Your task to perform on an android device: show emergency info Image 0: 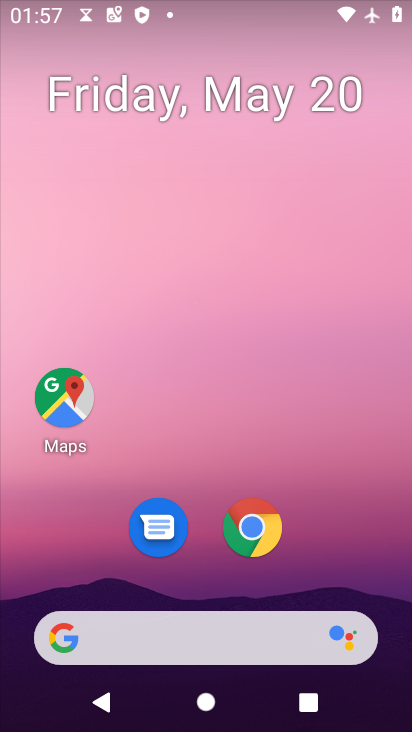
Step 0: press home button
Your task to perform on an android device: show emergency info Image 1: 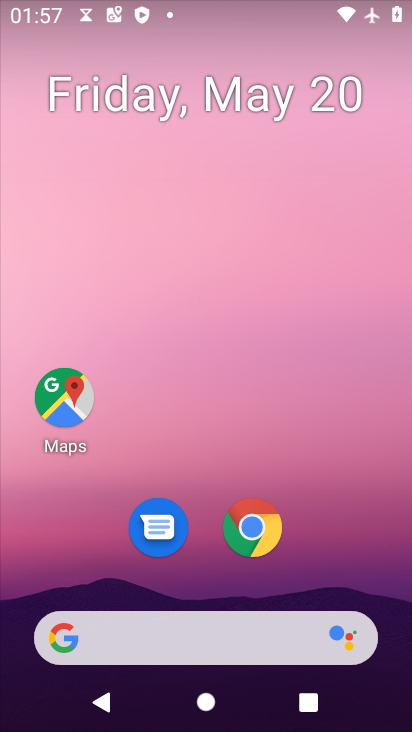
Step 1: drag from (142, 636) to (294, 240)
Your task to perform on an android device: show emergency info Image 2: 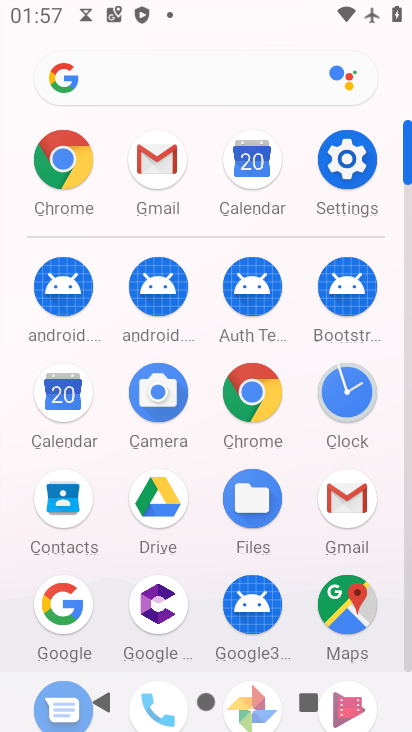
Step 2: click (352, 173)
Your task to perform on an android device: show emergency info Image 3: 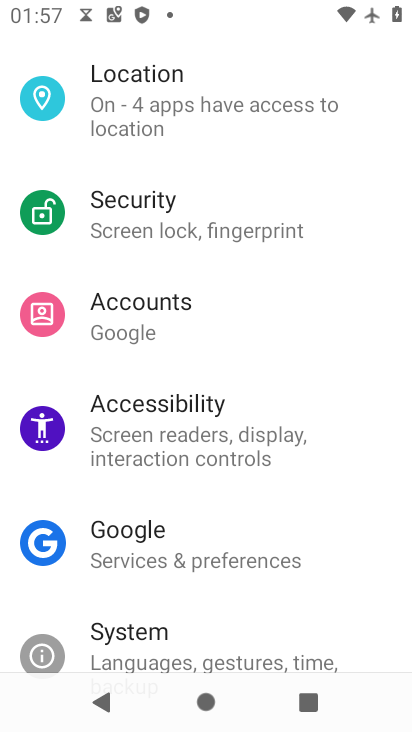
Step 3: drag from (259, 640) to (372, 204)
Your task to perform on an android device: show emergency info Image 4: 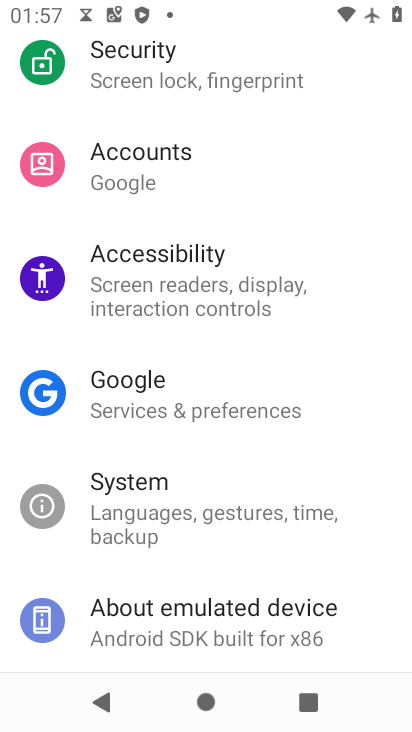
Step 4: drag from (236, 571) to (329, 292)
Your task to perform on an android device: show emergency info Image 5: 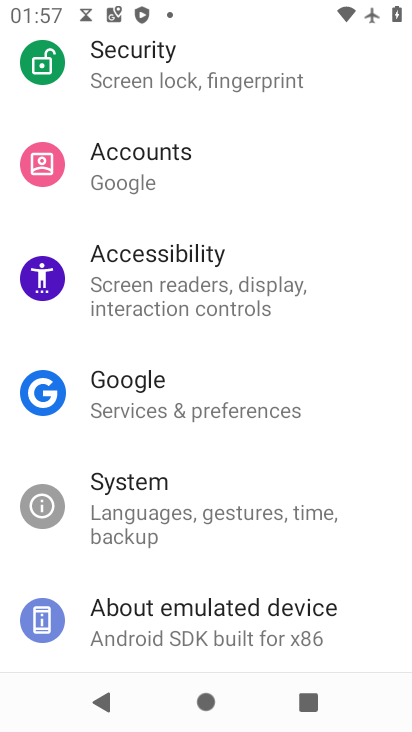
Step 5: click (198, 610)
Your task to perform on an android device: show emergency info Image 6: 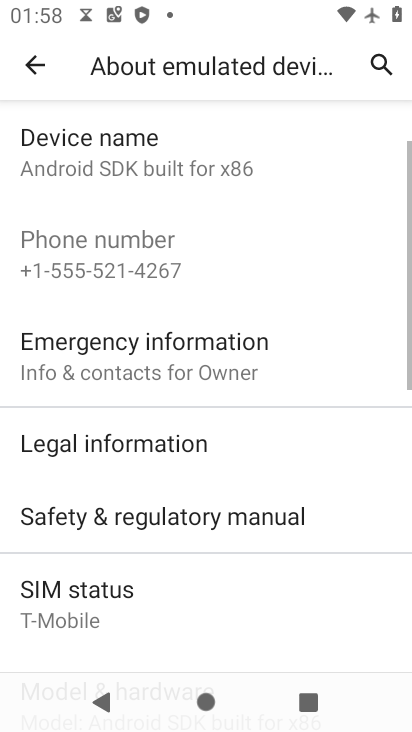
Step 6: click (178, 364)
Your task to perform on an android device: show emergency info Image 7: 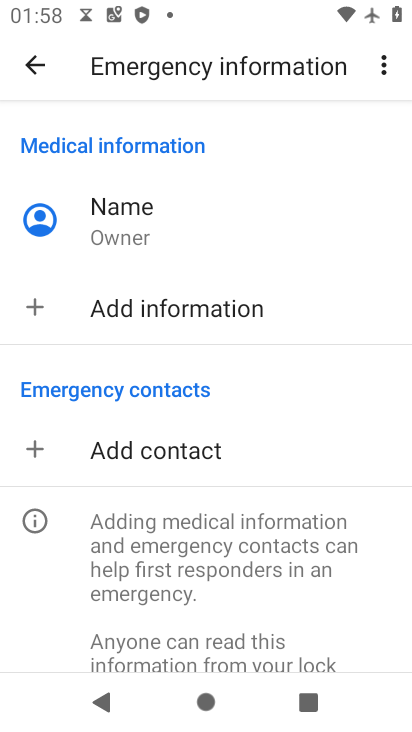
Step 7: task complete